Your task to perform on an android device: Go to Wikipedia Image 0: 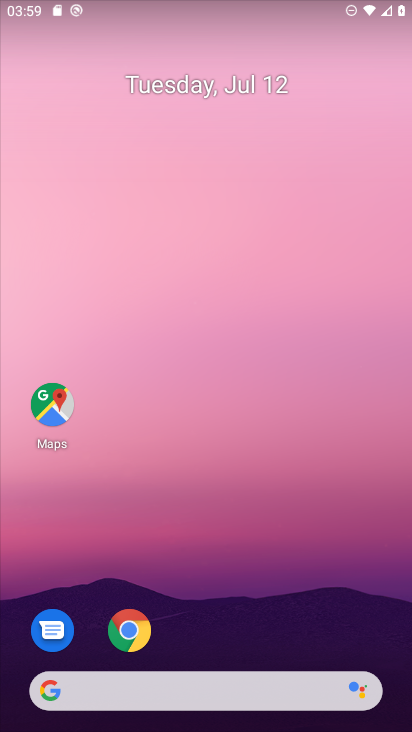
Step 0: click (123, 638)
Your task to perform on an android device: Go to Wikipedia Image 1: 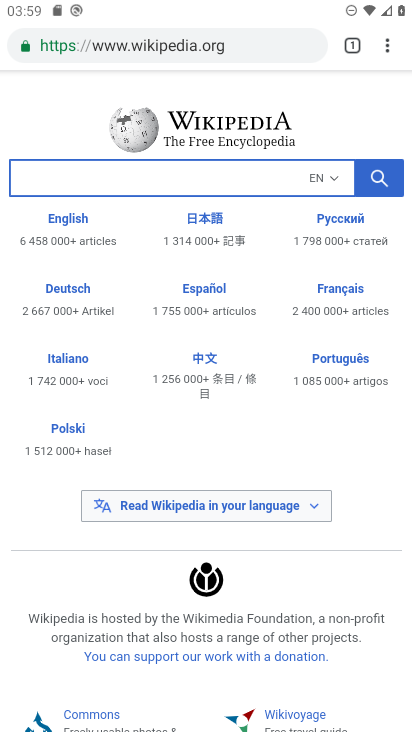
Step 1: task complete